Your task to perform on an android device: Go to settings Image 0: 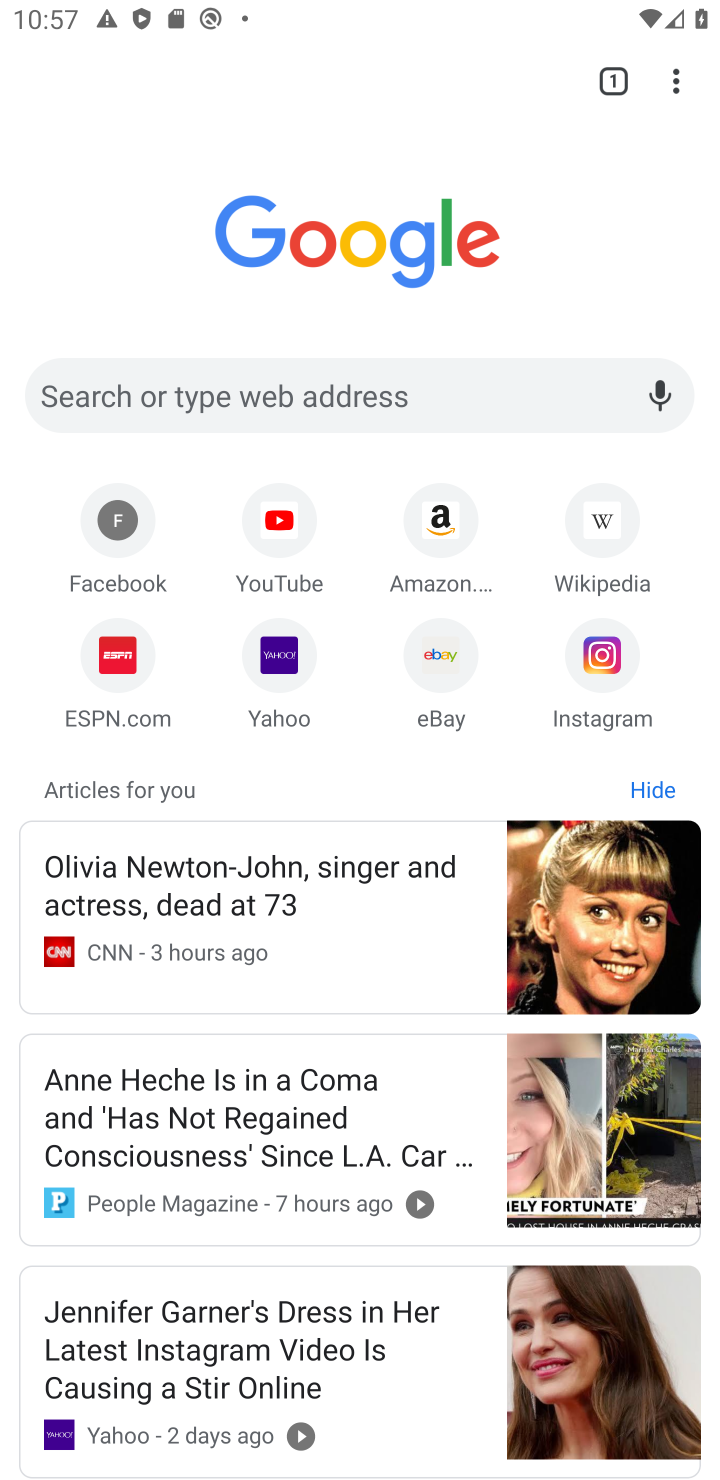
Step 0: press home button
Your task to perform on an android device: Go to settings Image 1: 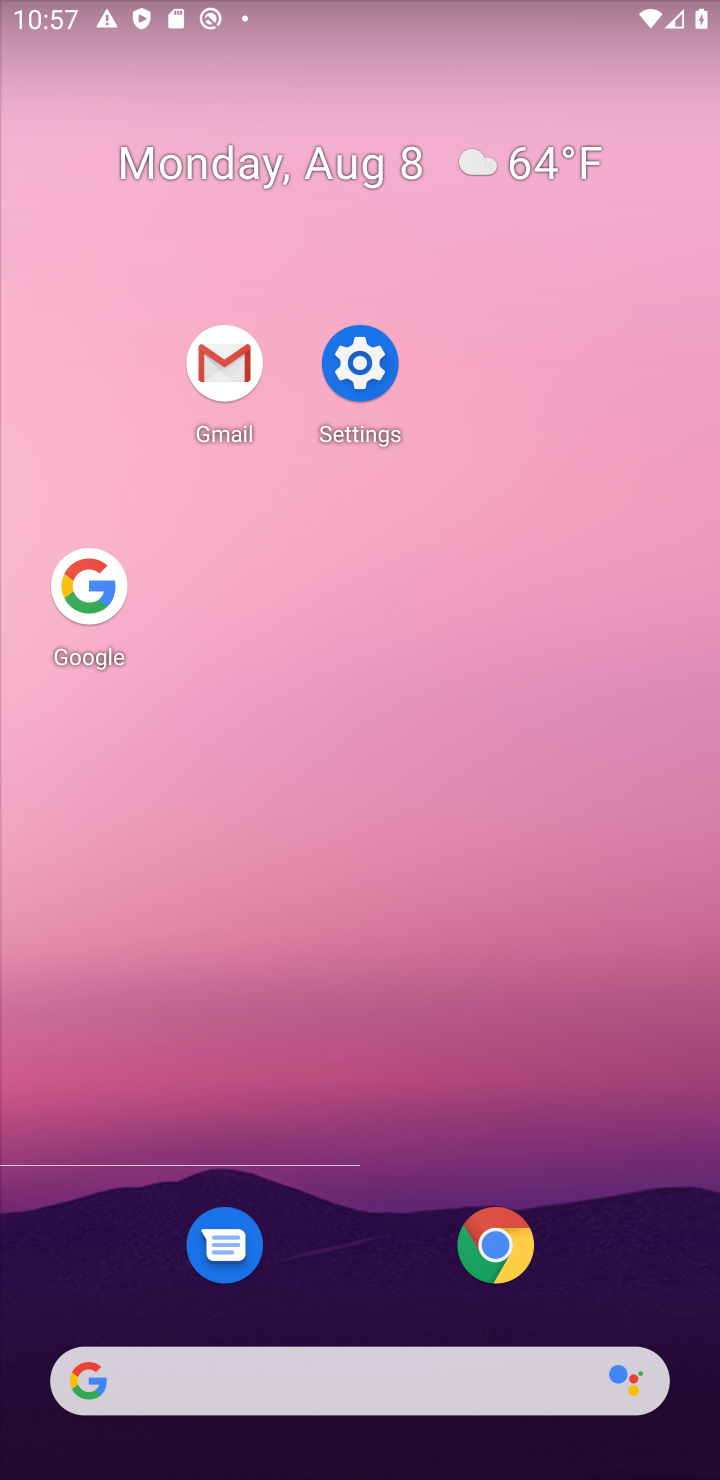
Step 1: click (346, 345)
Your task to perform on an android device: Go to settings Image 2: 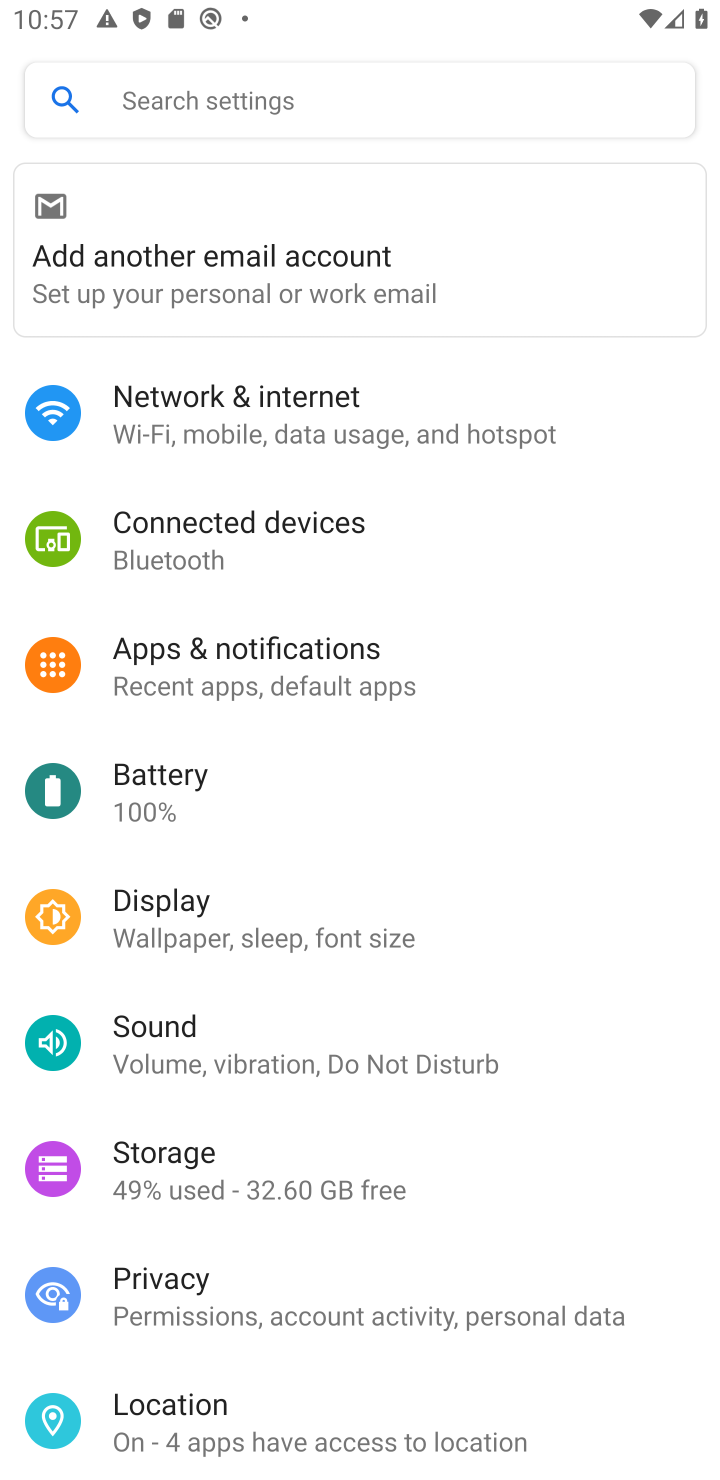
Step 2: task complete